Your task to perform on an android device: What is the recent news? Image 0: 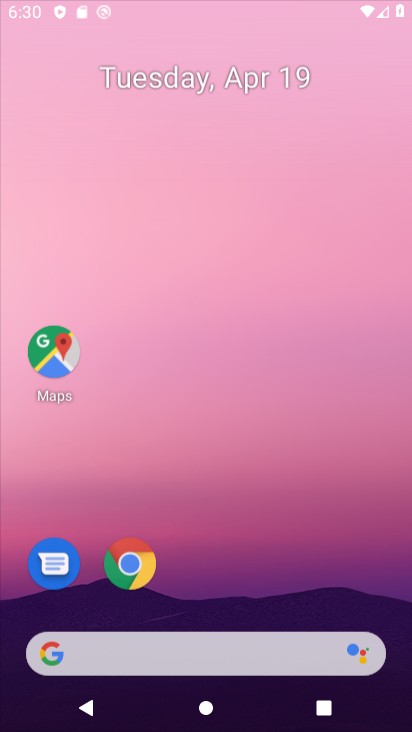
Step 0: click (181, 4)
Your task to perform on an android device: What is the recent news? Image 1: 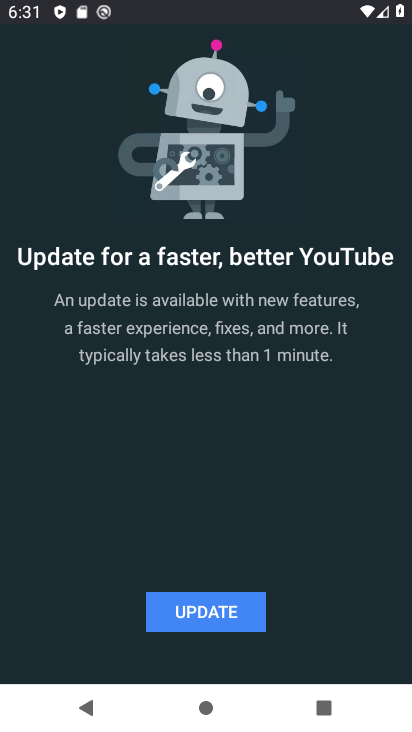
Step 1: press home button
Your task to perform on an android device: What is the recent news? Image 2: 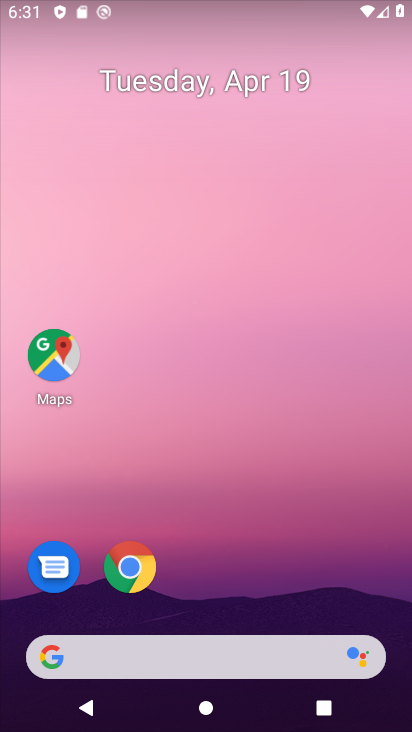
Step 2: click (138, 568)
Your task to perform on an android device: What is the recent news? Image 3: 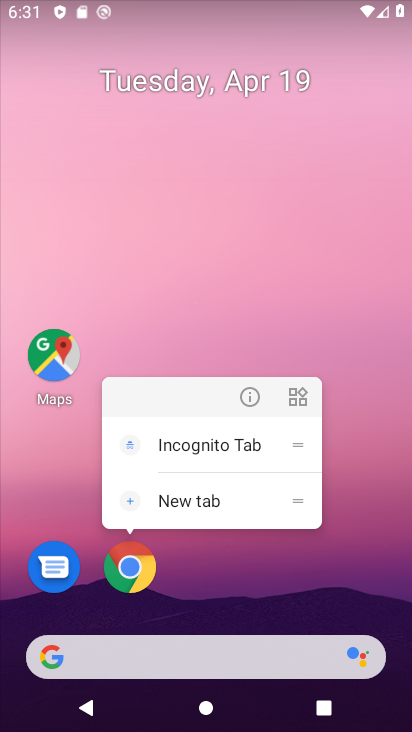
Step 3: click (138, 568)
Your task to perform on an android device: What is the recent news? Image 4: 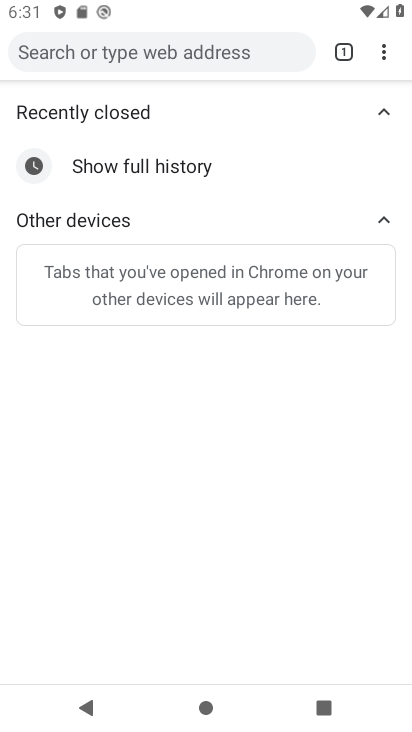
Step 4: click (94, 58)
Your task to perform on an android device: What is the recent news? Image 5: 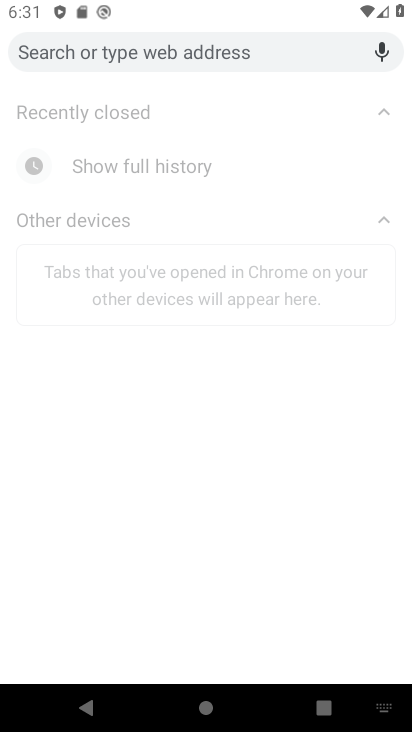
Step 5: click (91, 48)
Your task to perform on an android device: What is the recent news? Image 6: 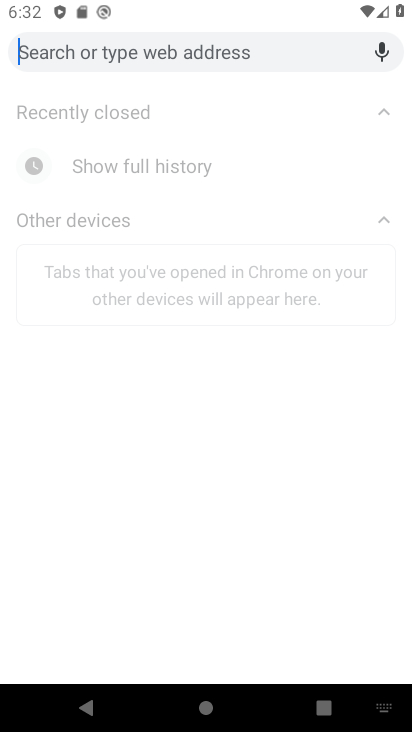
Step 6: type "What is the recent news?"
Your task to perform on an android device: What is the recent news? Image 7: 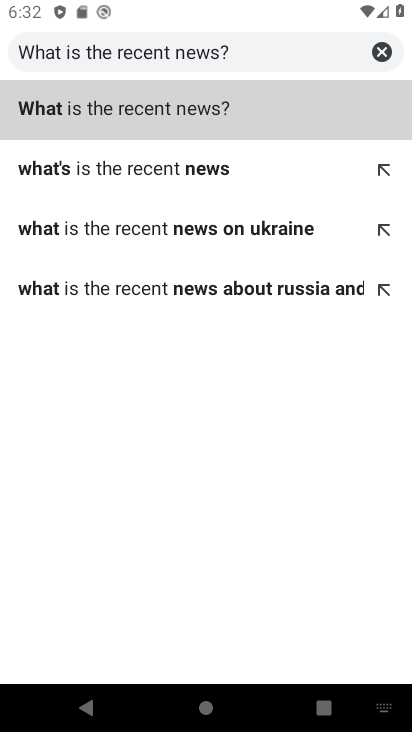
Step 7: click (87, 106)
Your task to perform on an android device: What is the recent news? Image 8: 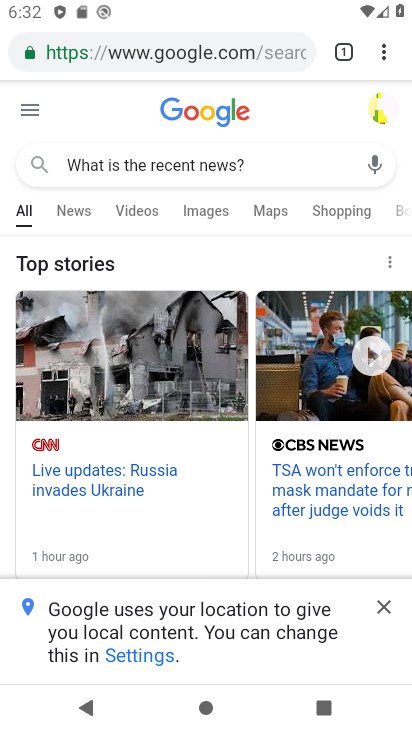
Step 8: task complete